Your task to perform on an android device: Open Youtube and go to "Your channel" Image 0: 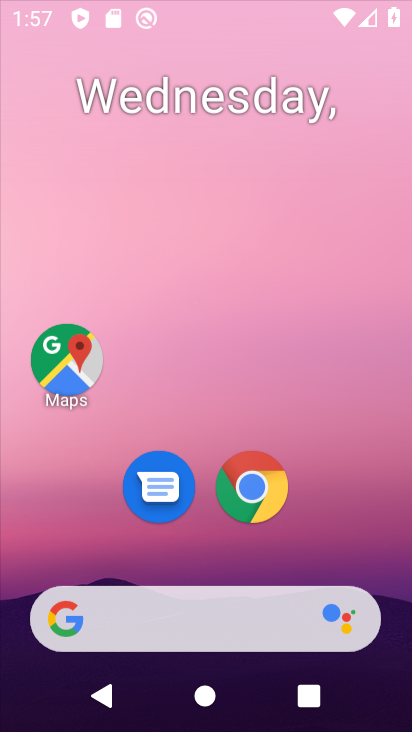
Step 0: drag from (331, 500) to (211, 178)
Your task to perform on an android device: Open Youtube and go to "Your channel" Image 1: 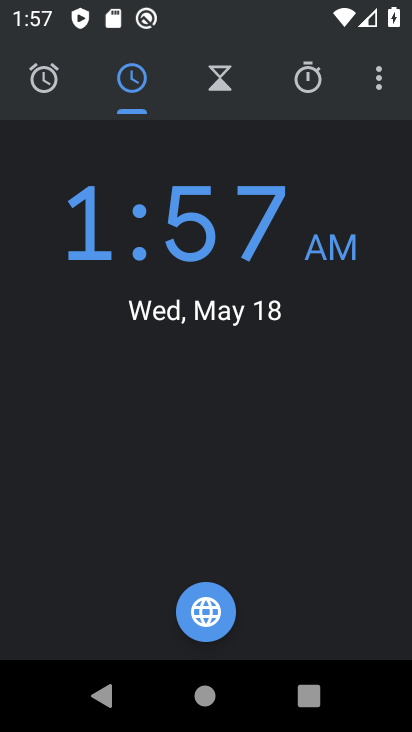
Step 1: press home button
Your task to perform on an android device: Open Youtube and go to "Your channel" Image 2: 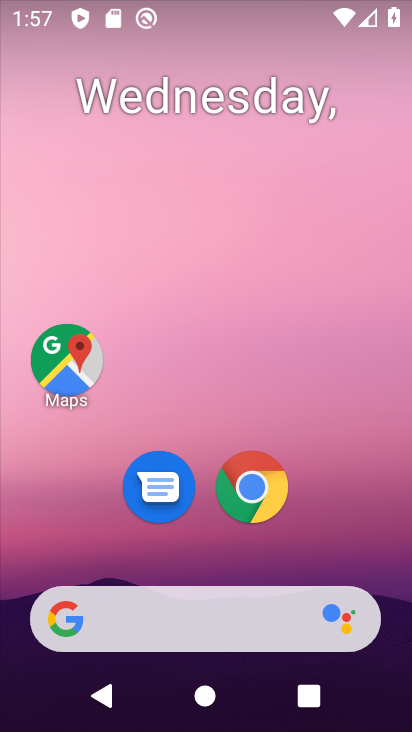
Step 2: drag from (341, 525) to (249, 85)
Your task to perform on an android device: Open Youtube and go to "Your channel" Image 3: 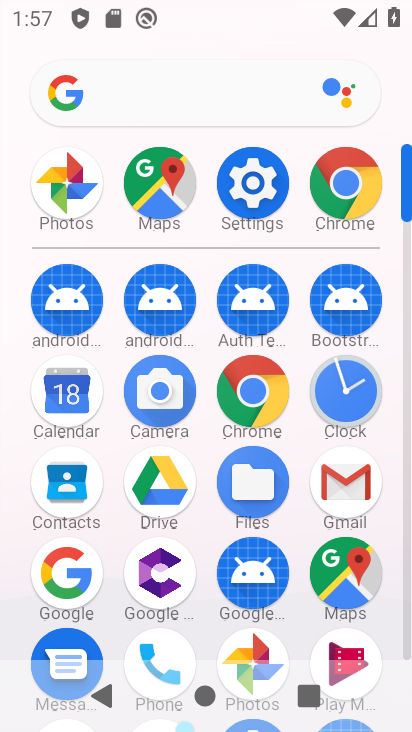
Step 3: drag from (308, 605) to (246, 229)
Your task to perform on an android device: Open Youtube and go to "Your channel" Image 4: 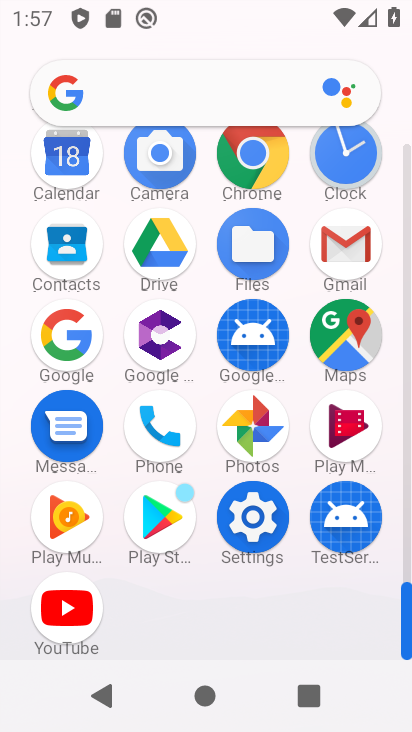
Step 4: click (51, 619)
Your task to perform on an android device: Open Youtube and go to "Your channel" Image 5: 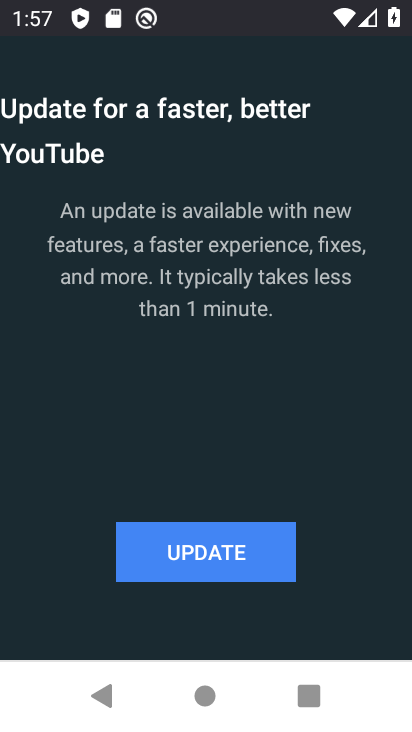
Step 5: click (202, 567)
Your task to perform on an android device: Open Youtube and go to "Your channel" Image 6: 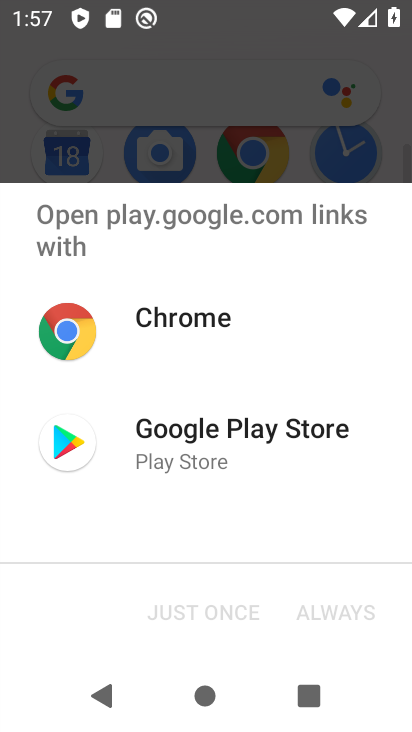
Step 6: click (191, 425)
Your task to perform on an android device: Open Youtube and go to "Your channel" Image 7: 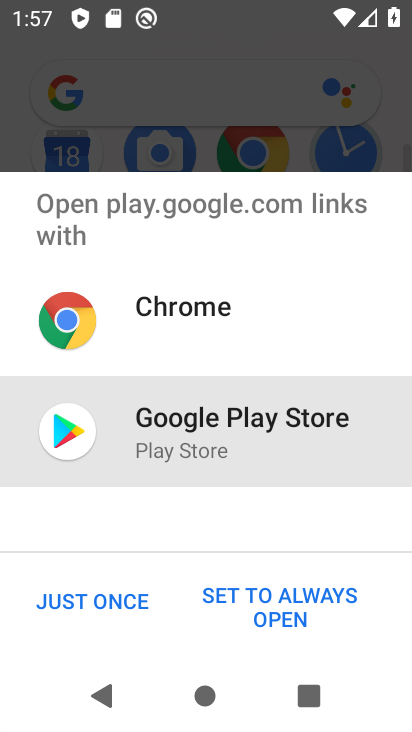
Step 7: click (51, 599)
Your task to perform on an android device: Open Youtube and go to "Your channel" Image 8: 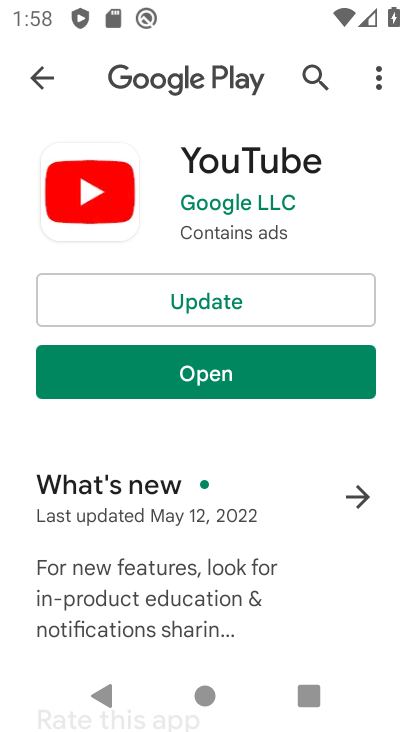
Step 8: click (201, 310)
Your task to perform on an android device: Open Youtube and go to "Your channel" Image 9: 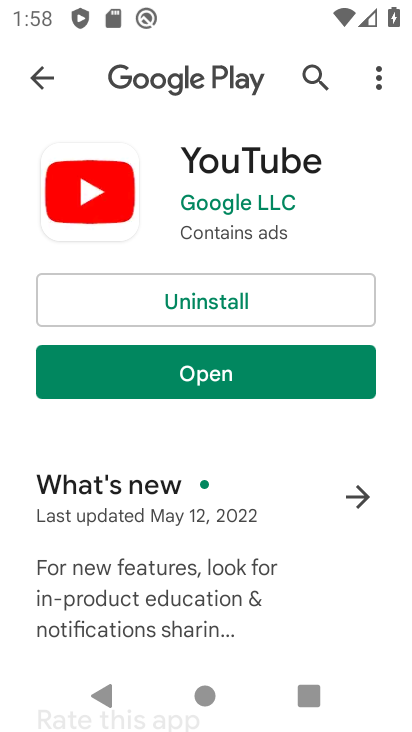
Step 9: click (288, 370)
Your task to perform on an android device: Open Youtube and go to "Your channel" Image 10: 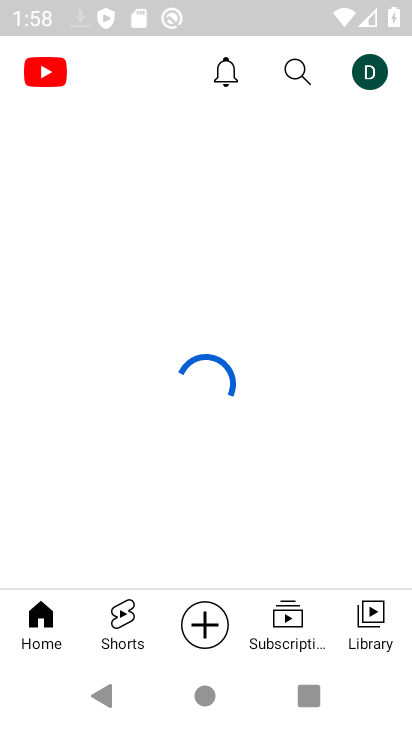
Step 10: click (378, 59)
Your task to perform on an android device: Open Youtube and go to "Your channel" Image 11: 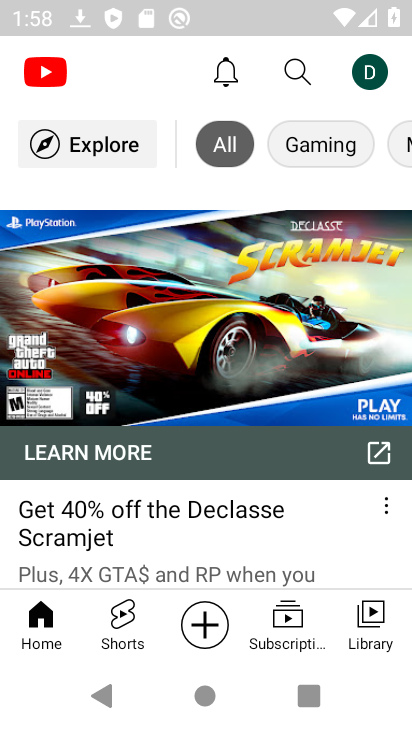
Step 11: click (358, 76)
Your task to perform on an android device: Open Youtube and go to "Your channel" Image 12: 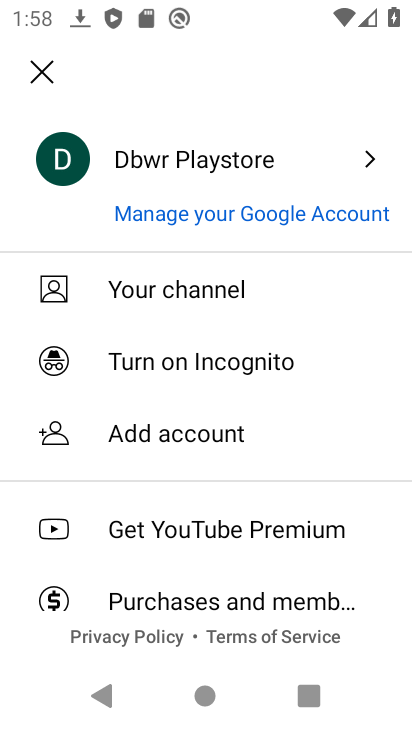
Step 12: click (159, 290)
Your task to perform on an android device: Open Youtube and go to "Your channel" Image 13: 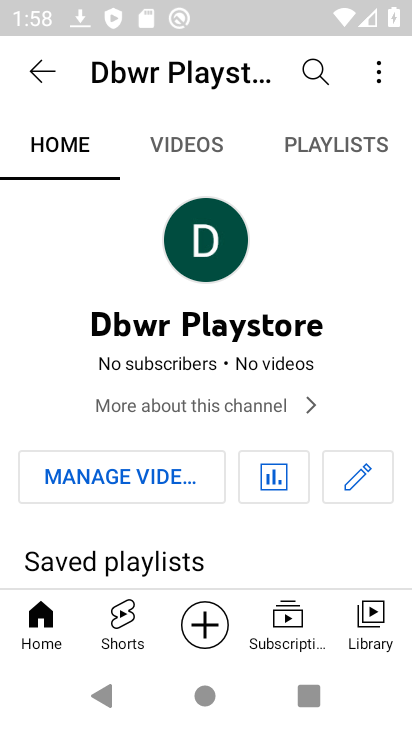
Step 13: task complete